Your task to perform on an android device: Open location settings Image 0: 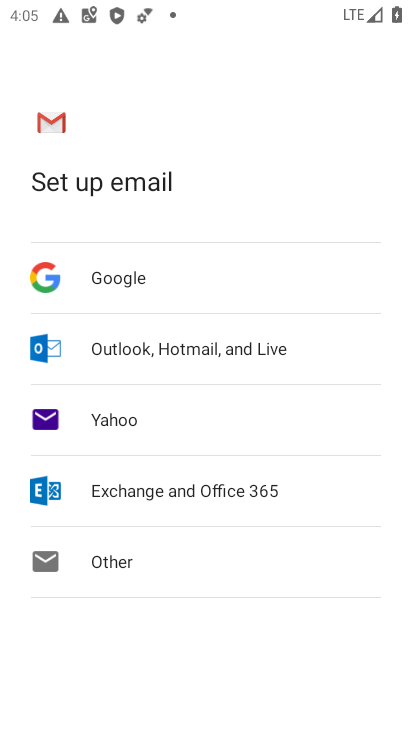
Step 0: press home button
Your task to perform on an android device: Open location settings Image 1: 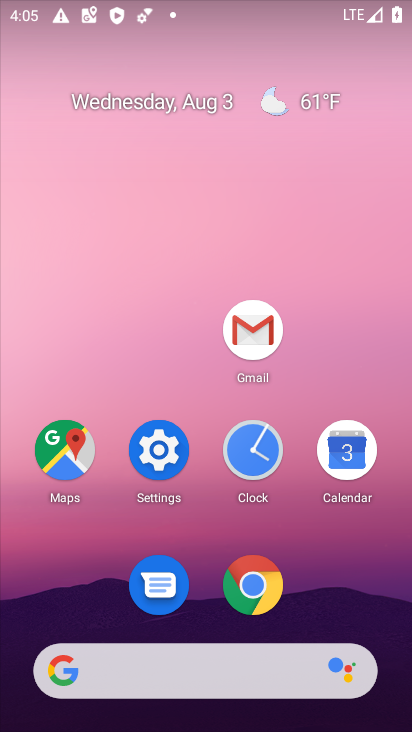
Step 1: click (169, 445)
Your task to perform on an android device: Open location settings Image 2: 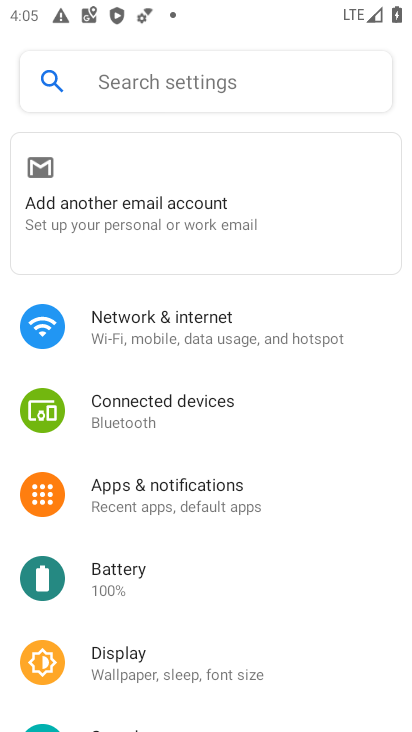
Step 2: drag from (296, 638) to (286, 310)
Your task to perform on an android device: Open location settings Image 3: 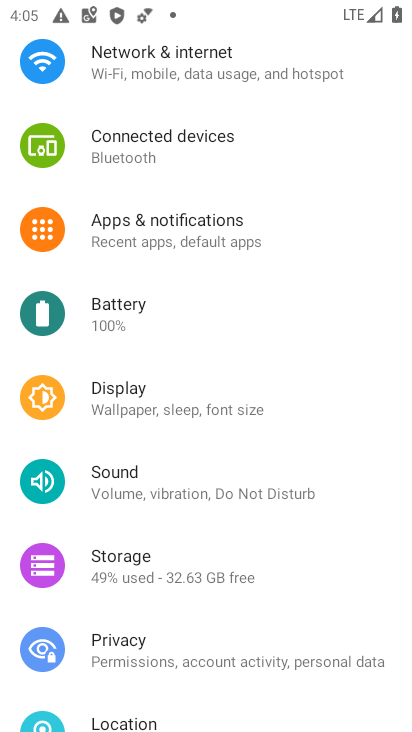
Step 3: click (100, 718)
Your task to perform on an android device: Open location settings Image 4: 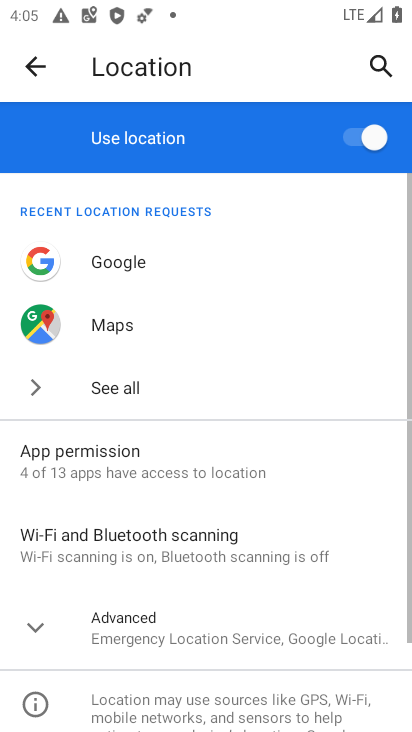
Step 4: click (33, 629)
Your task to perform on an android device: Open location settings Image 5: 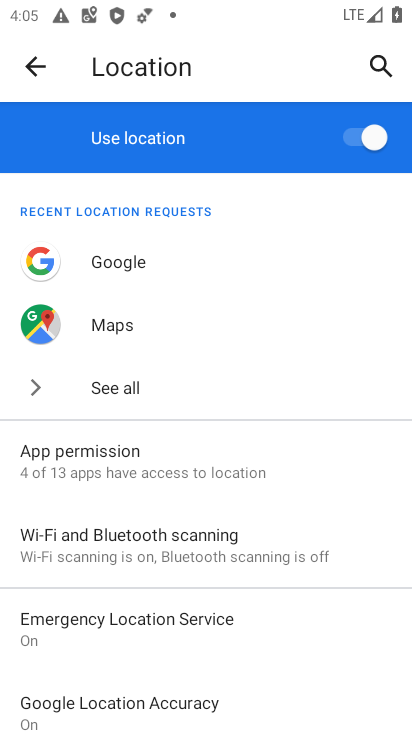
Step 5: task complete